Your task to perform on an android device: Go to settings Image 0: 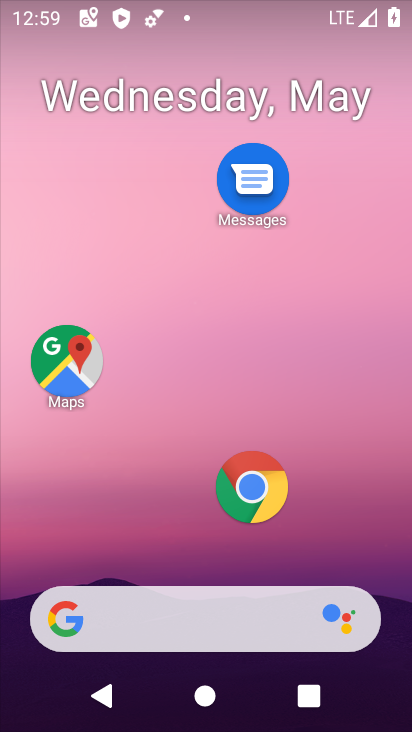
Step 0: drag from (170, 526) to (229, 35)
Your task to perform on an android device: Go to settings Image 1: 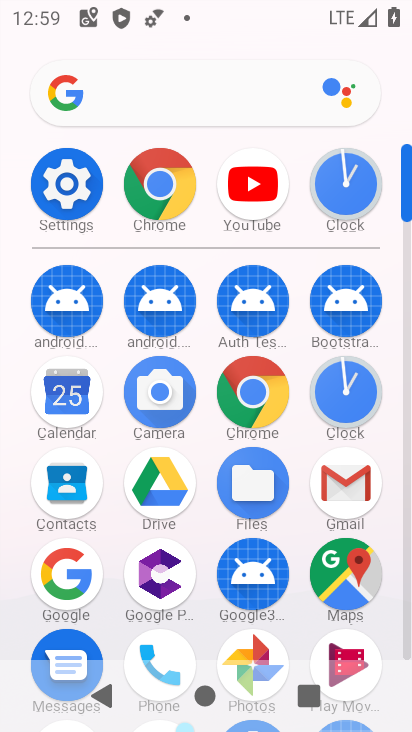
Step 1: click (77, 198)
Your task to perform on an android device: Go to settings Image 2: 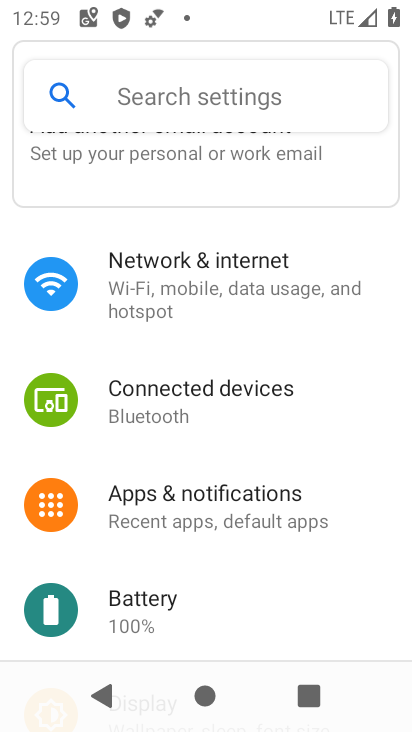
Step 2: task complete